Your task to perform on an android device: open app "NewsBreak: Local News & Alerts" (install if not already installed) and enter user name: "switch@outlook.com" and password: "fabrics" Image 0: 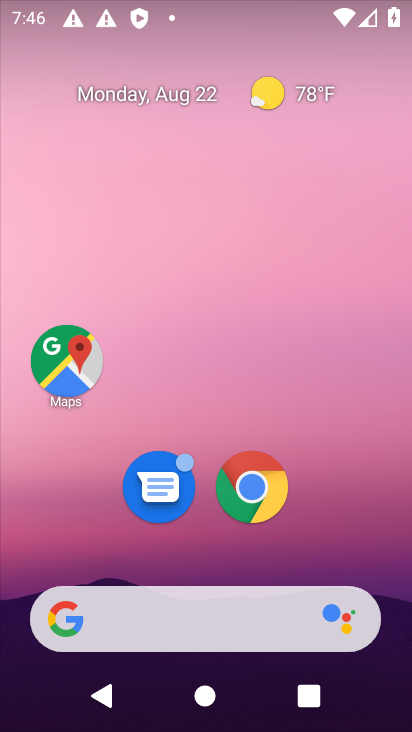
Step 0: drag from (247, 544) to (339, 2)
Your task to perform on an android device: open app "NewsBreak: Local News & Alerts" (install if not already installed) and enter user name: "switch@outlook.com" and password: "fabrics" Image 1: 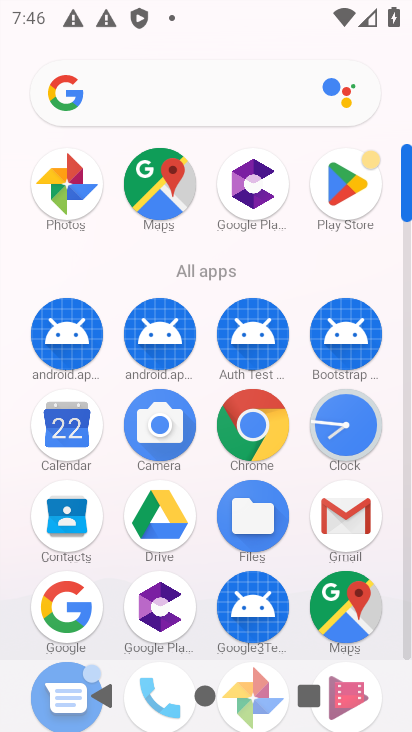
Step 1: click (335, 164)
Your task to perform on an android device: open app "NewsBreak: Local News & Alerts" (install if not already installed) and enter user name: "switch@outlook.com" and password: "fabrics" Image 2: 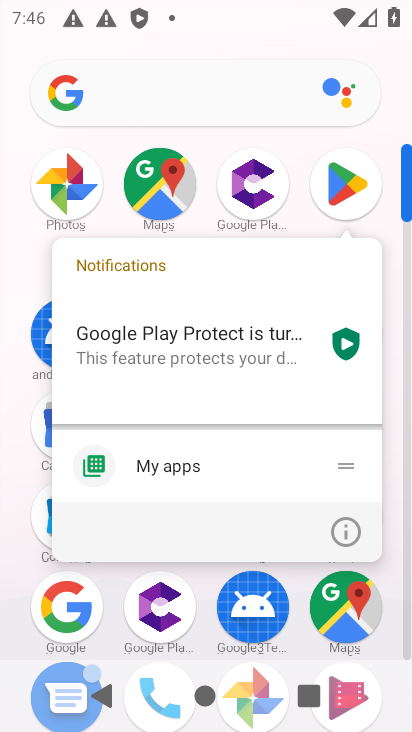
Step 2: click (332, 154)
Your task to perform on an android device: open app "NewsBreak: Local News & Alerts" (install if not already installed) and enter user name: "switch@outlook.com" and password: "fabrics" Image 3: 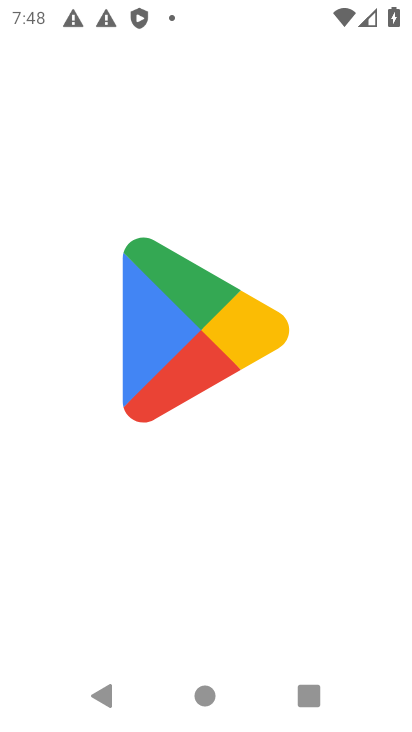
Step 3: task complete